Your task to perform on an android device: Go to Reddit.com Image 0: 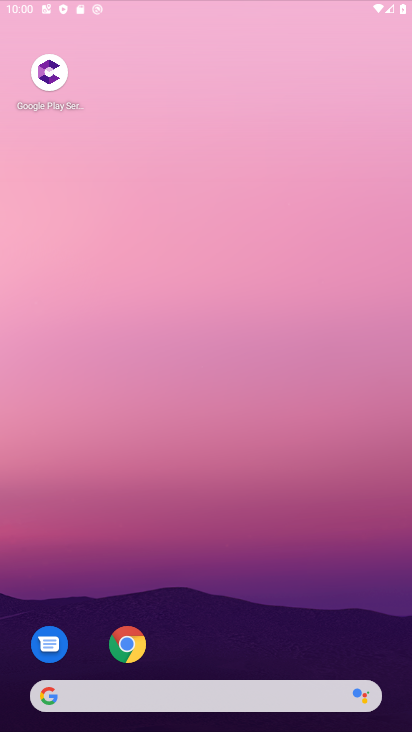
Step 0: press back button
Your task to perform on an android device: Go to Reddit.com Image 1: 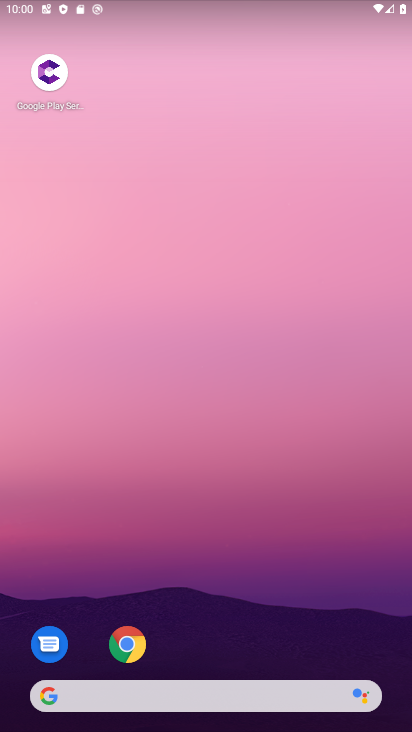
Step 1: drag from (126, 147) to (114, 64)
Your task to perform on an android device: Go to Reddit.com Image 2: 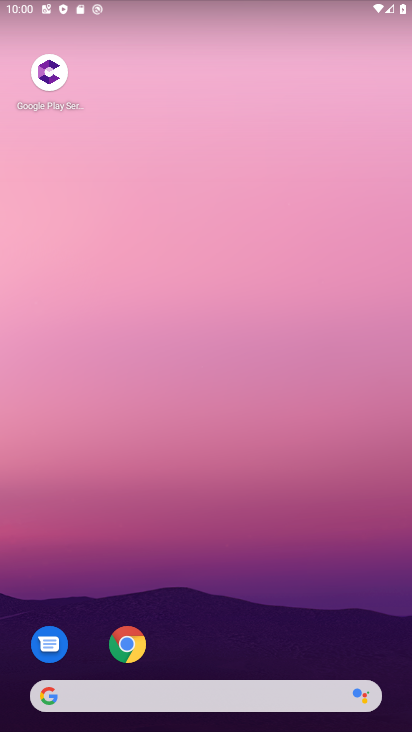
Step 2: click (162, 48)
Your task to perform on an android device: Go to Reddit.com Image 3: 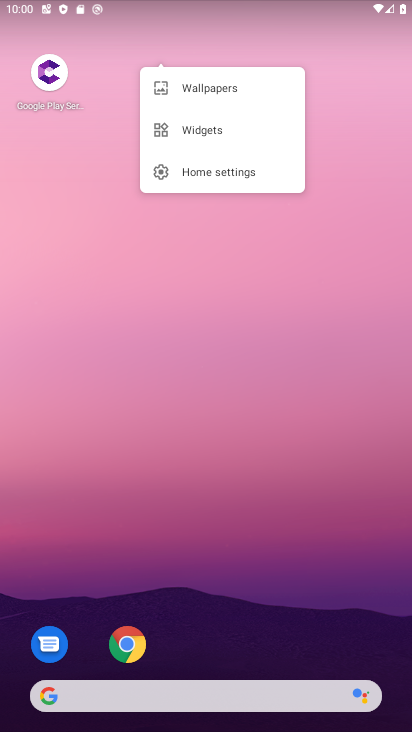
Step 3: click (150, 10)
Your task to perform on an android device: Go to Reddit.com Image 4: 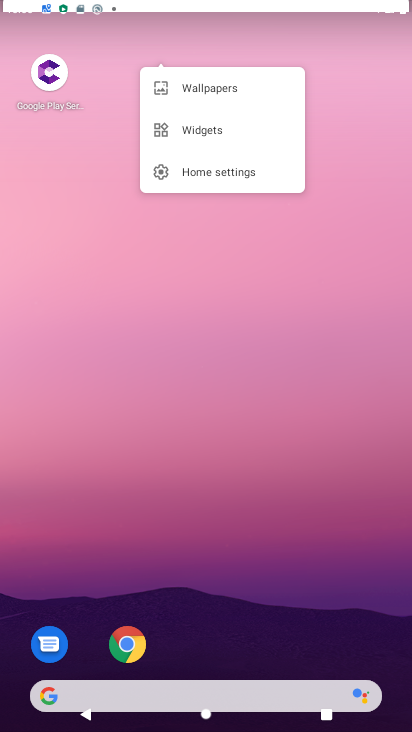
Step 4: drag from (165, 451) to (74, 95)
Your task to perform on an android device: Go to Reddit.com Image 5: 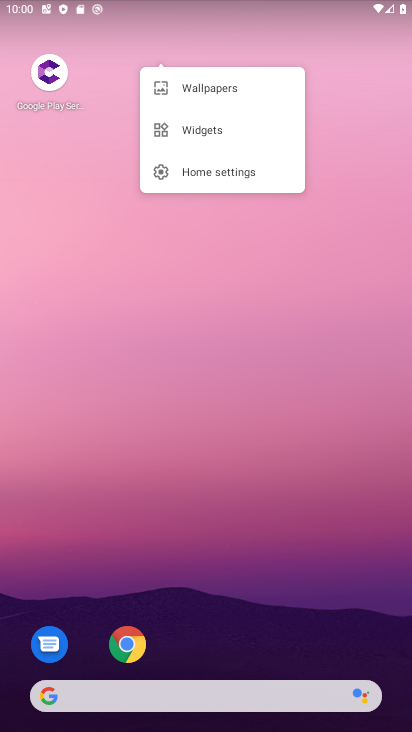
Step 5: drag from (243, 558) to (63, 158)
Your task to perform on an android device: Go to Reddit.com Image 6: 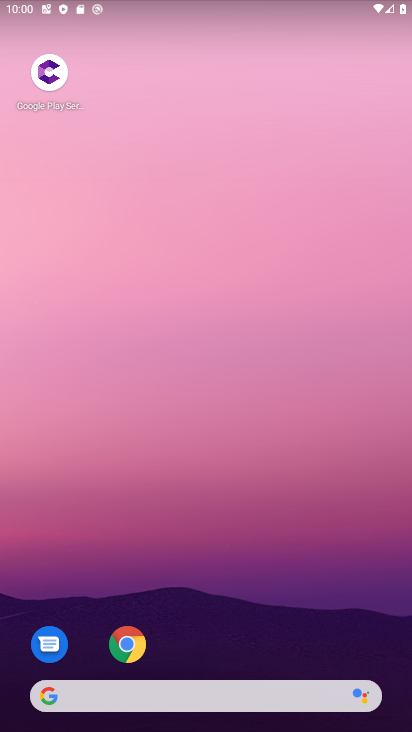
Step 6: drag from (258, 597) to (157, 319)
Your task to perform on an android device: Go to Reddit.com Image 7: 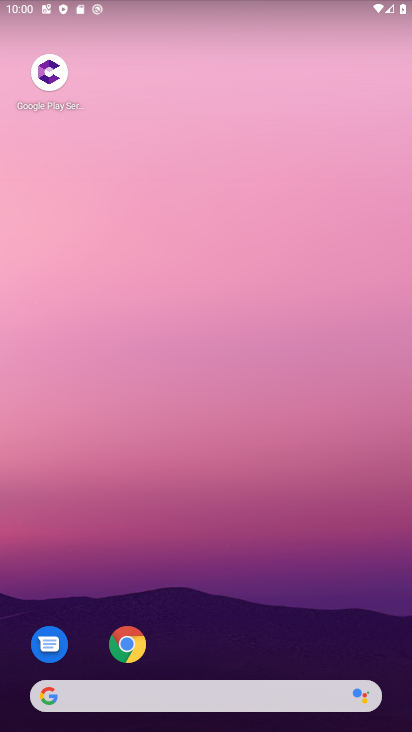
Step 7: drag from (156, 305) to (144, 265)
Your task to perform on an android device: Go to Reddit.com Image 8: 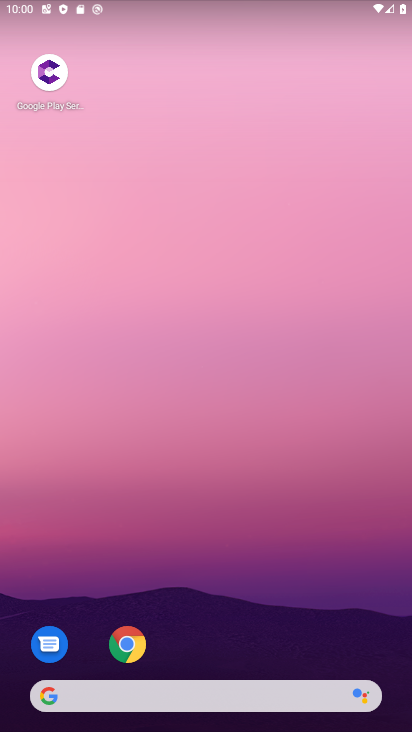
Step 8: drag from (296, 729) to (203, 78)
Your task to perform on an android device: Go to Reddit.com Image 9: 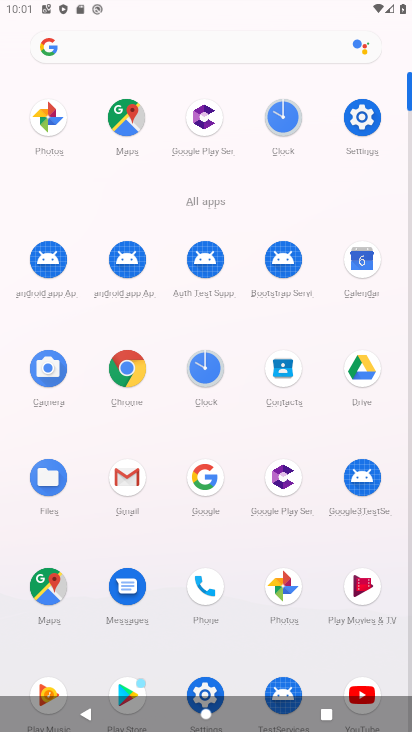
Step 9: drag from (216, 502) to (130, 187)
Your task to perform on an android device: Go to Reddit.com Image 10: 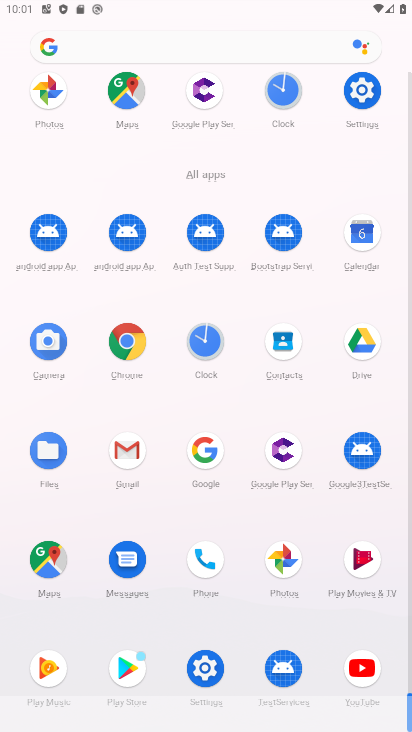
Step 10: click (358, 87)
Your task to perform on an android device: Go to Reddit.com Image 11: 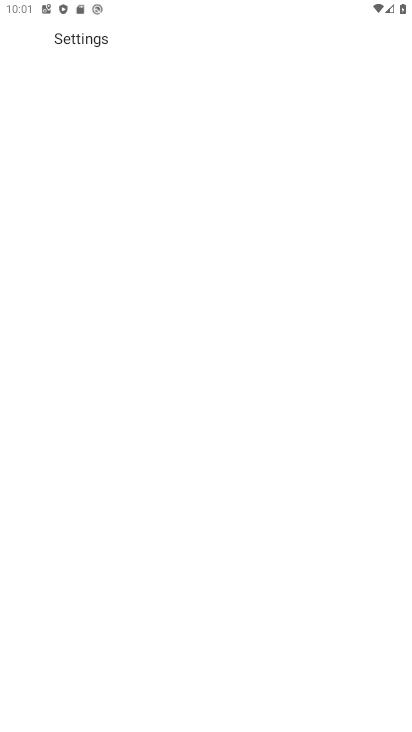
Step 11: click (358, 87)
Your task to perform on an android device: Go to Reddit.com Image 12: 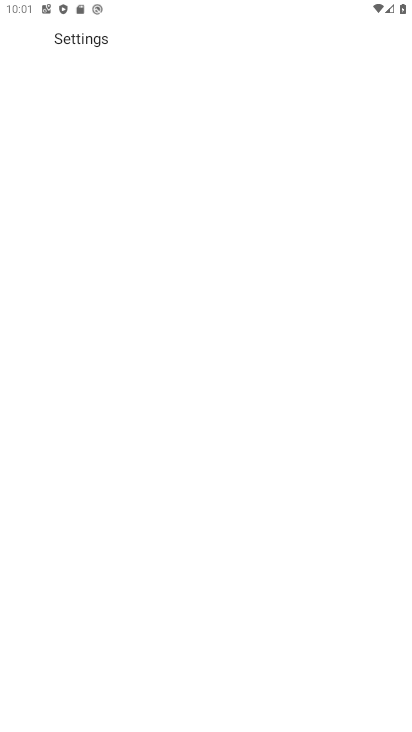
Step 12: click (358, 87)
Your task to perform on an android device: Go to Reddit.com Image 13: 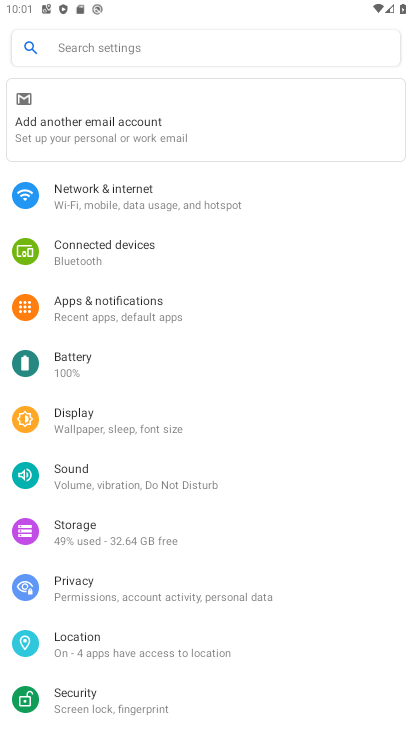
Step 13: press back button
Your task to perform on an android device: Go to Reddit.com Image 14: 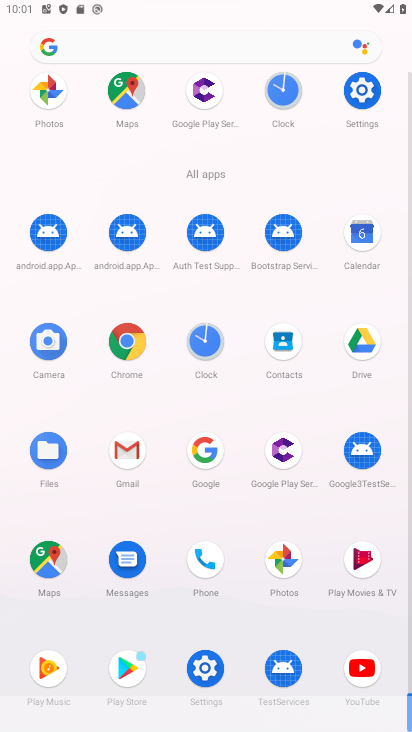
Step 14: click (121, 345)
Your task to perform on an android device: Go to Reddit.com Image 15: 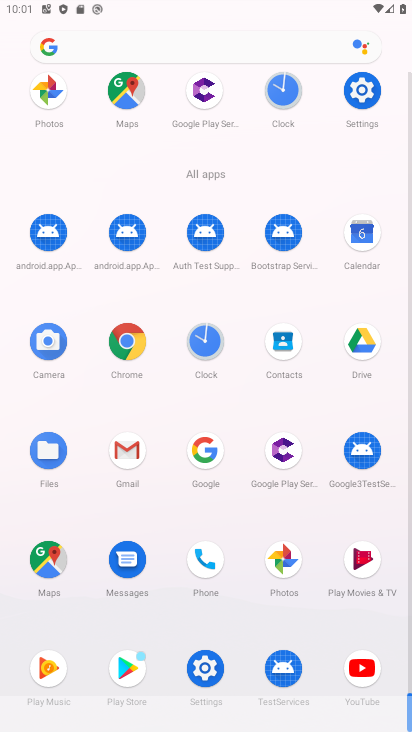
Step 15: click (121, 345)
Your task to perform on an android device: Go to Reddit.com Image 16: 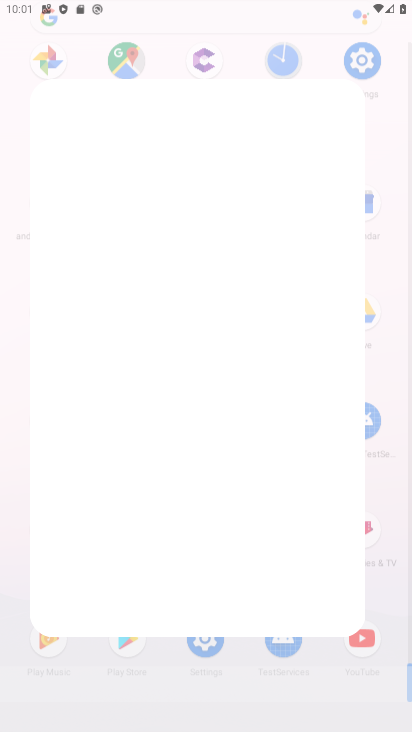
Step 16: click (124, 345)
Your task to perform on an android device: Go to Reddit.com Image 17: 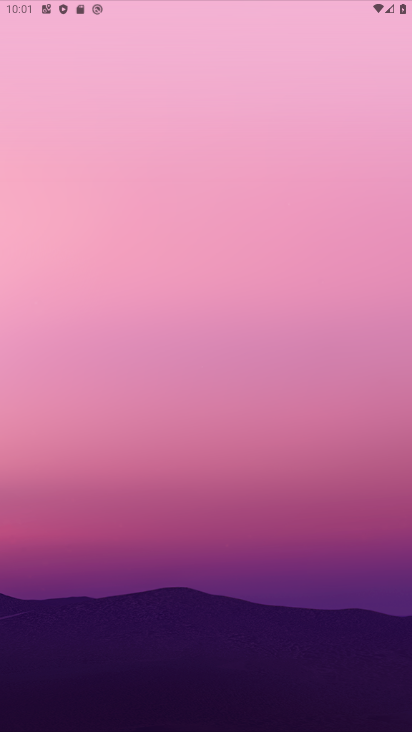
Step 17: click (126, 347)
Your task to perform on an android device: Go to Reddit.com Image 18: 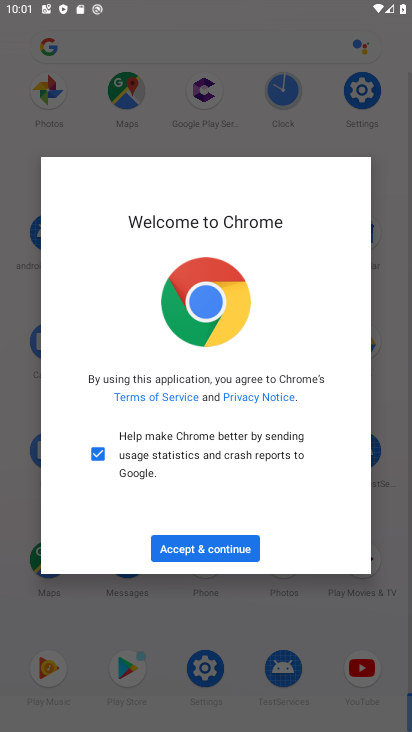
Step 18: click (211, 548)
Your task to perform on an android device: Go to Reddit.com Image 19: 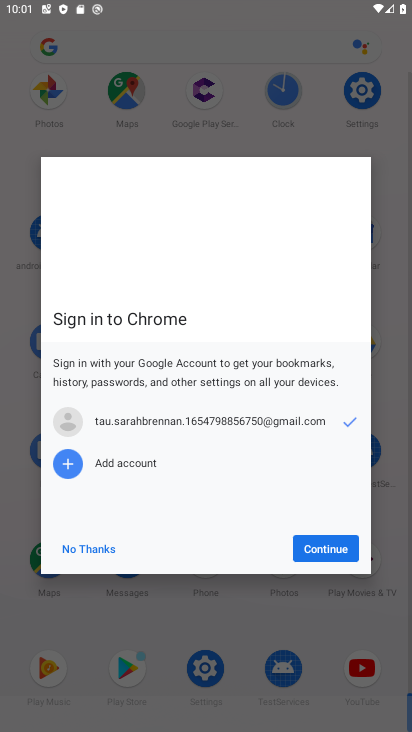
Step 19: click (212, 549)
Your task to perform on an android device: Go to Reddit.com Image 20: 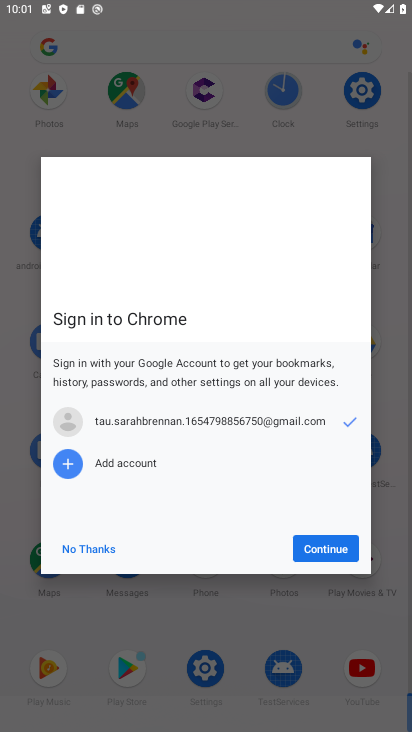
Step 20: click (212, 549)
Your task to perform on an android device: Go to Reddit.com Image 21: 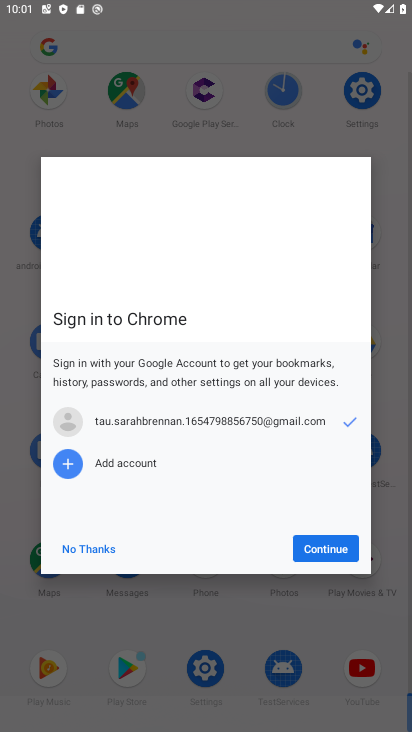
Step 21: click (212, 549)
Your task to perform on an android device: Go to Reddit.com Image 22: 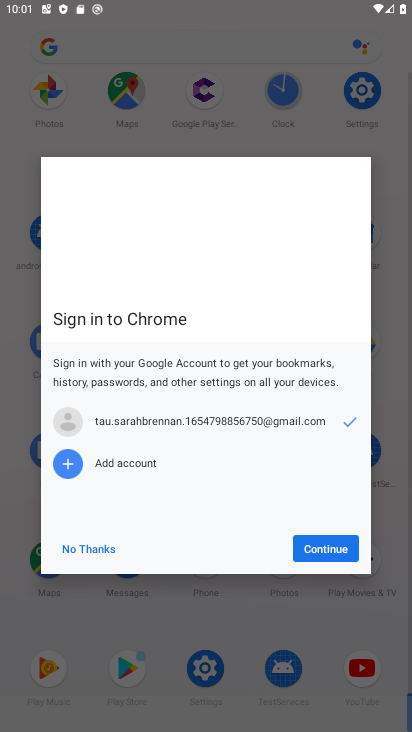
Step 22: click (320, 544)
Your task to perform on an android device: Go to Reddit.com Image 23: 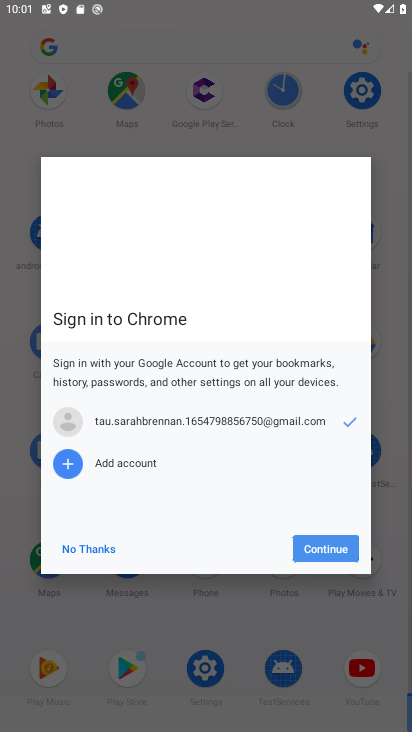
Step 23: click (321, 545)
Your task to perform on an android device: Go to Reddit.com Image 24: 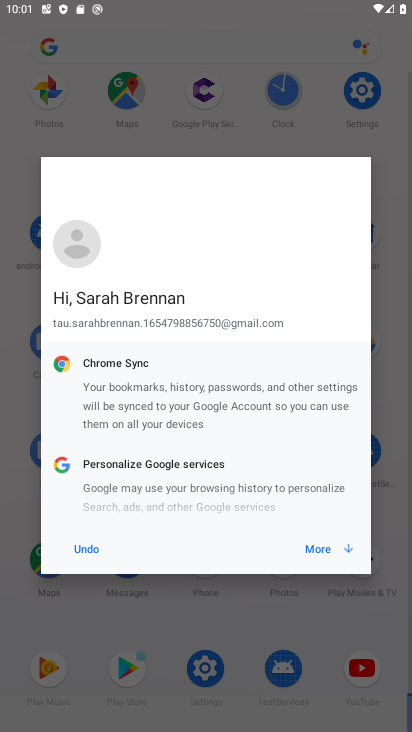
Step 24: click (322, 546)
Your task to perform on an android device: Go to Reddit.com Image 25: 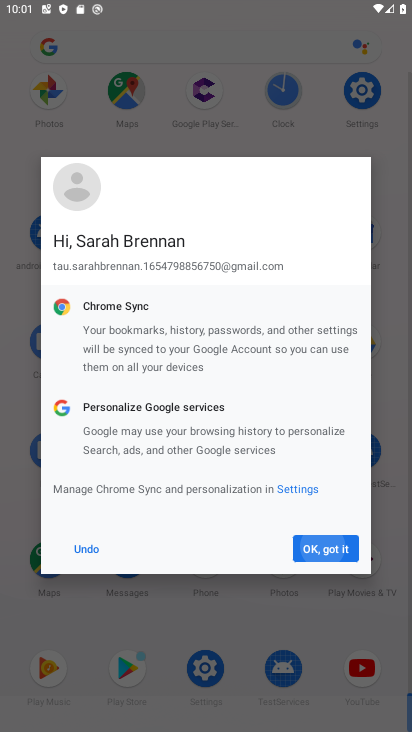
Step 25: click (322, 546)
Your task to perform on an android device: Go to Reddit.com Image 26: 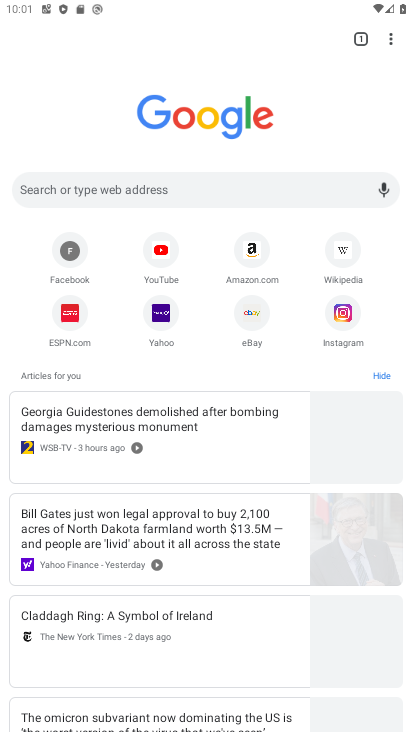
Step 26: drag from (74, 34) to (150, 186)
Your task to perform on an android device: Go to Reddit.com Image 27: 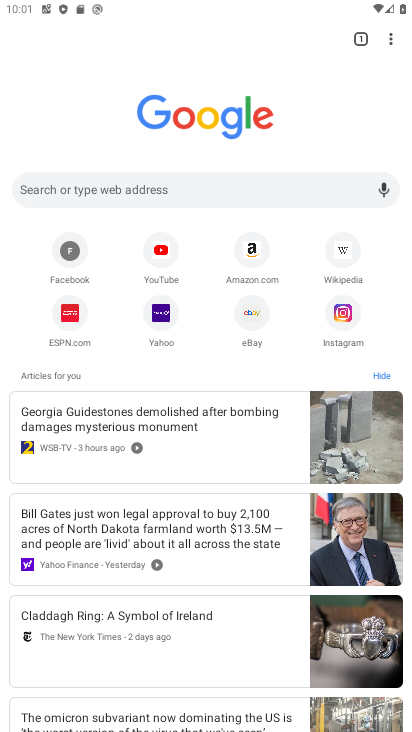
Step 27: click (150, 186)
Your task to perform on an android device: Go to Reddit.com Image 28: 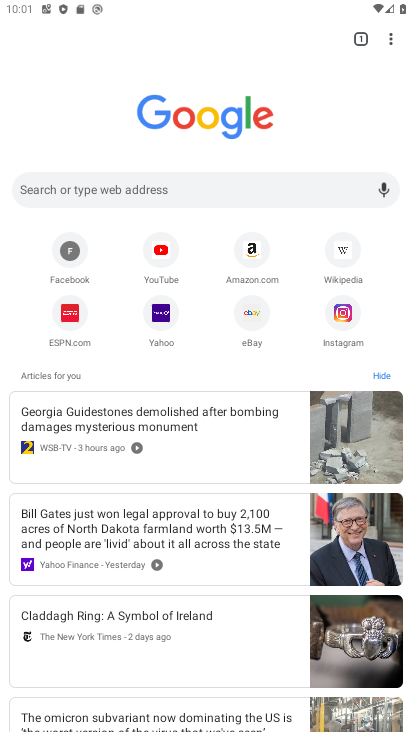
Step 28: click (152, 188)
Your task to perform on an android device: Go to Reddit.com Image 29: 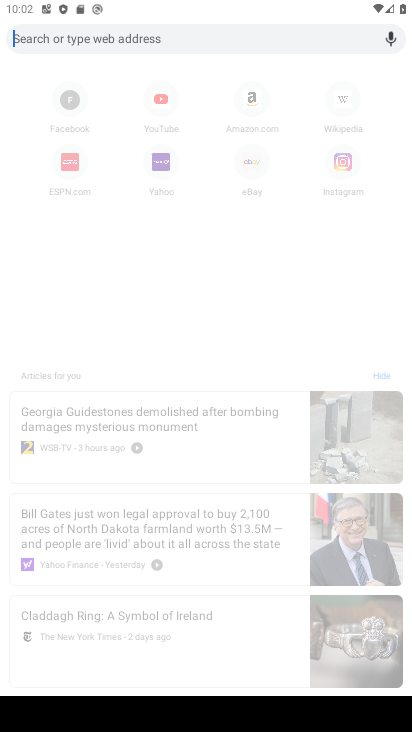
Step 29: type "reddit.com"
Your task to perform on an android device: Go to Reddit.com Image 30: 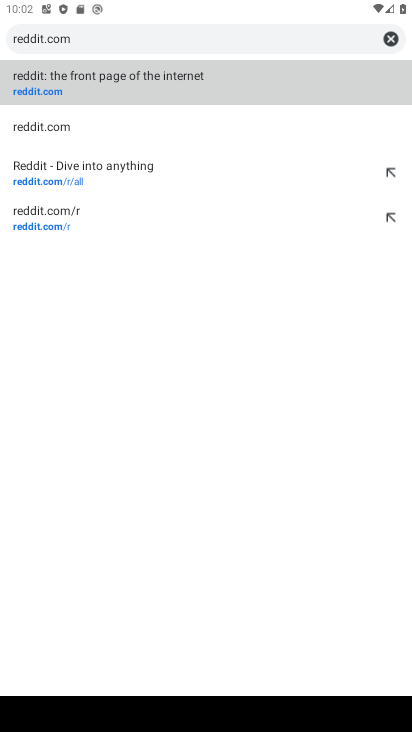
Step 30: click (40, 116)
Your task to perform on an android device: Go to Reddit.com Image 31: 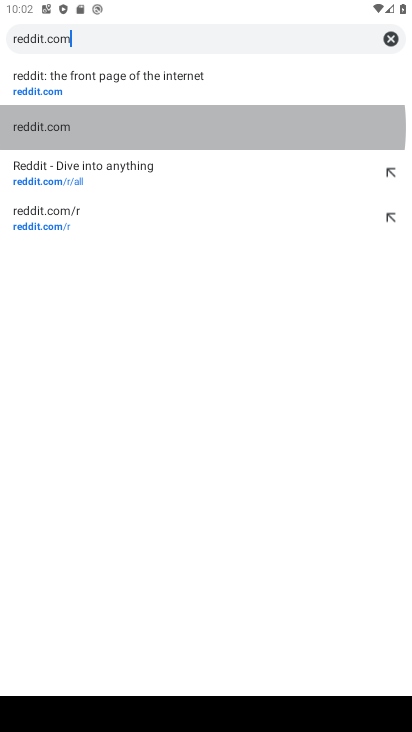
Step 31: click (46, 118)
Your task to perform on an android device: Go to Reddit.com Image 32: 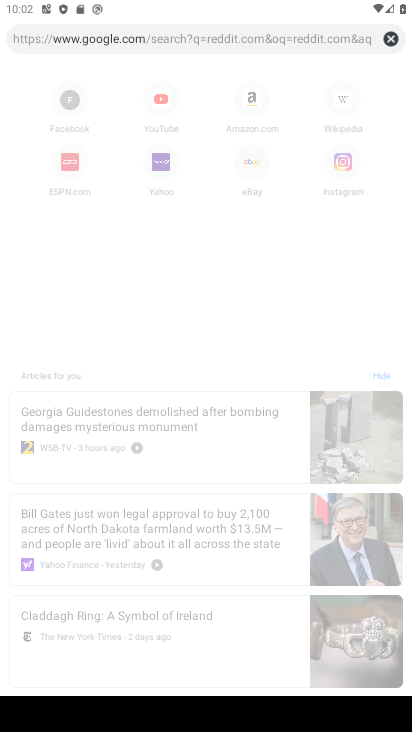
Step 32: click (47, 118)
Your task to perform on an android device: Go to Reddit.com Image 33: 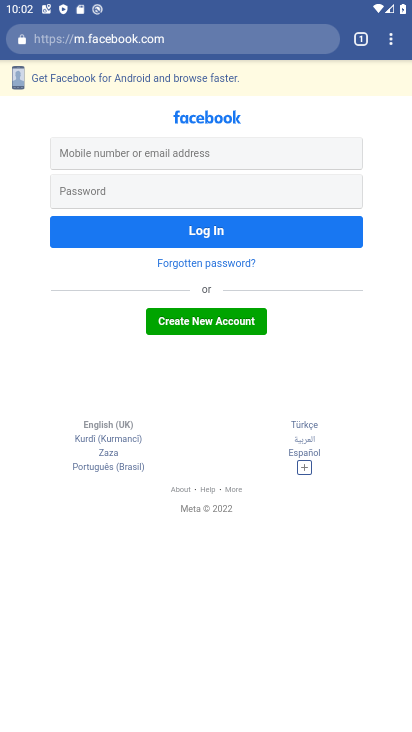
Step 33: press back button
Your task to perform on an android device: Go to Reddit.com Image 34: 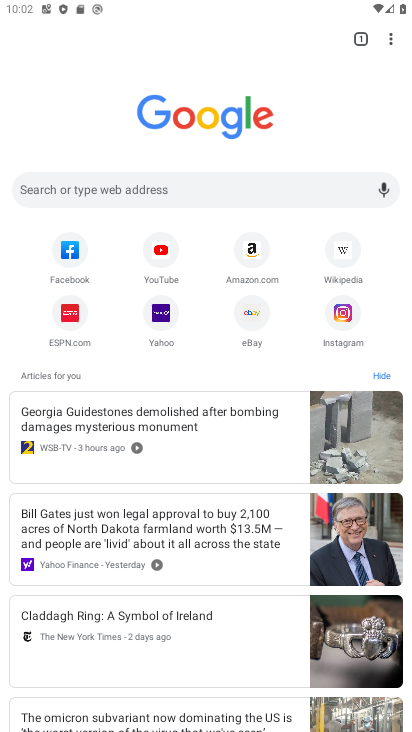
Step 34: click (58, 196)
Your task to perform on an android device: Go to Reddit.com Image 35: 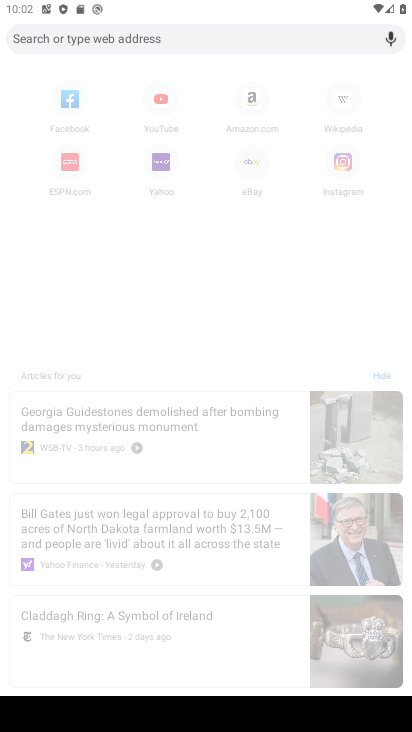
Step 35: type "www.reddit.com"
Your task to perform on an android device: Go to Reddit.com Image 36: 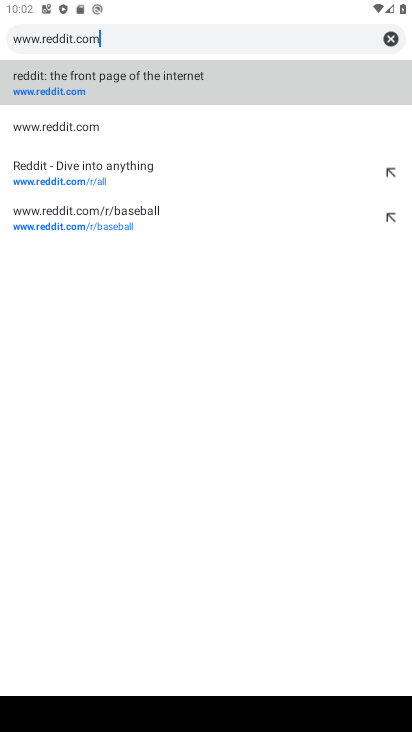
Step 36: click (64, 93)
Your task to perform on an android device: Go to Reddit.com Image 37: 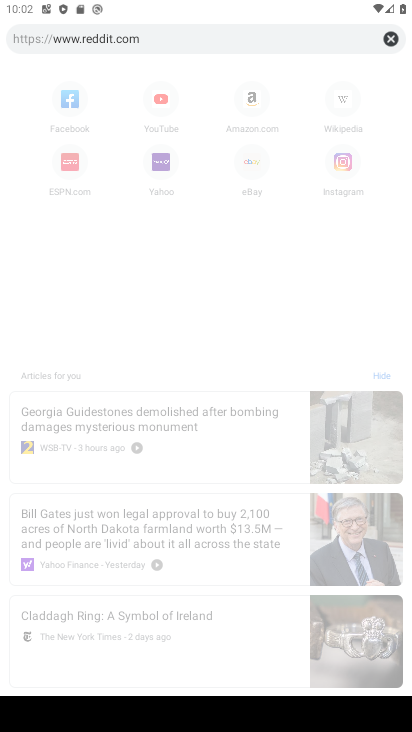
Step 37: click (70, 87)
Your task to perform on an android device: Go to Reddit.com Image 38: 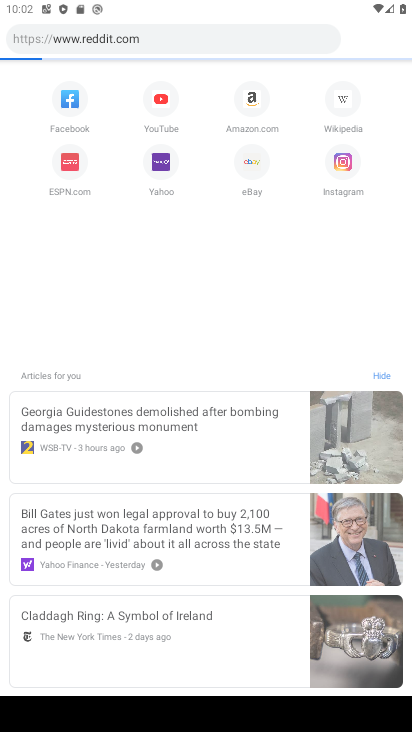
Step 38: click (71, 87)
Your task to perform on an android device: Go to Reddit.com Image 39: 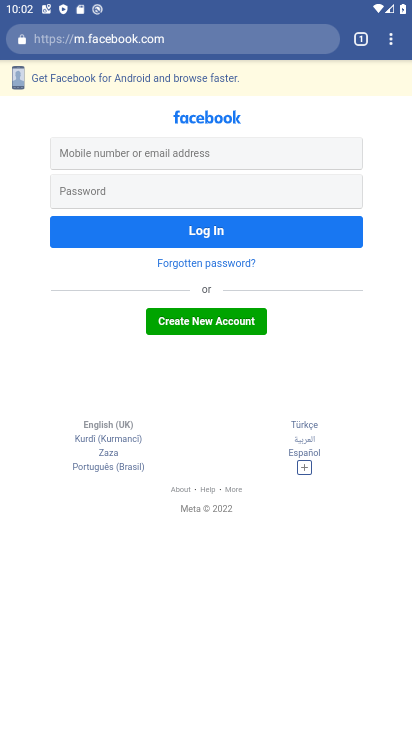
Step 39: task complete